Your task to perform on an android device: What's the weather going to be tomorrow? Image 0: 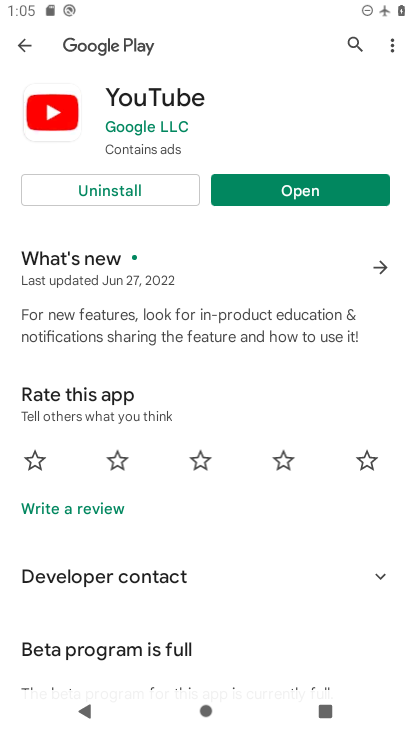
Step 0: press home button
Your task to perform on an android device: What's the weather going to be tomorrow? Image 1: 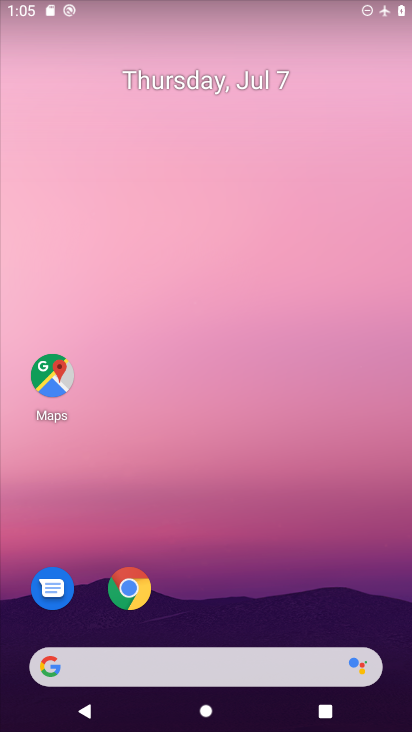
Step 1: drag from (331, 678) to (289, 0)
Your task to perform on an android device: What's the weather going to be tomorrow? Image 2: 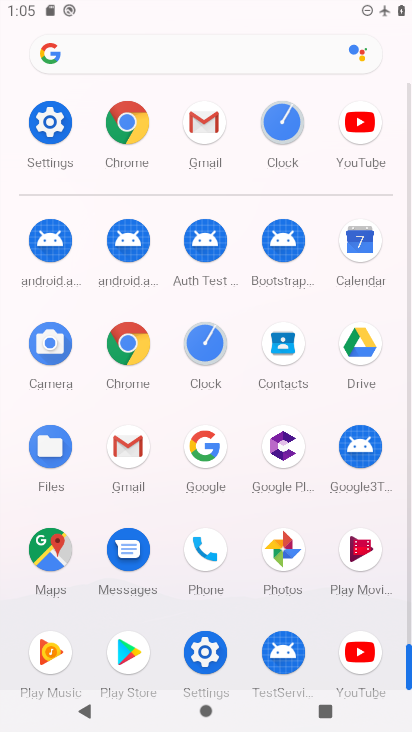
Step 2: click (201, 445)
Your task to perform on an android device: What's the weather going to be tomorrow? Image 3: 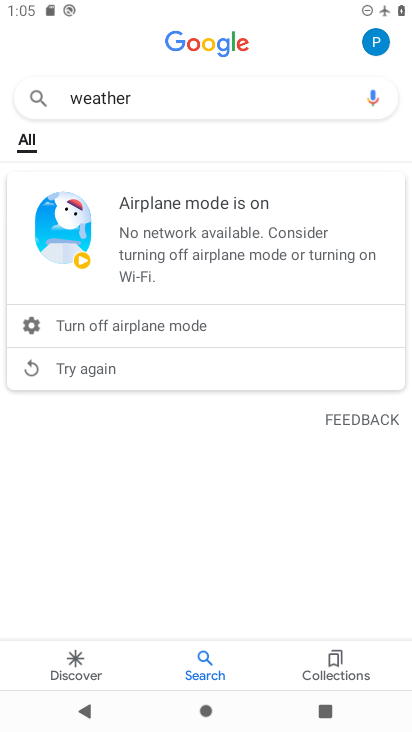
Step 3: task complete